Your task to perform on an android device: toggle javascript in the chrome app Image 0: 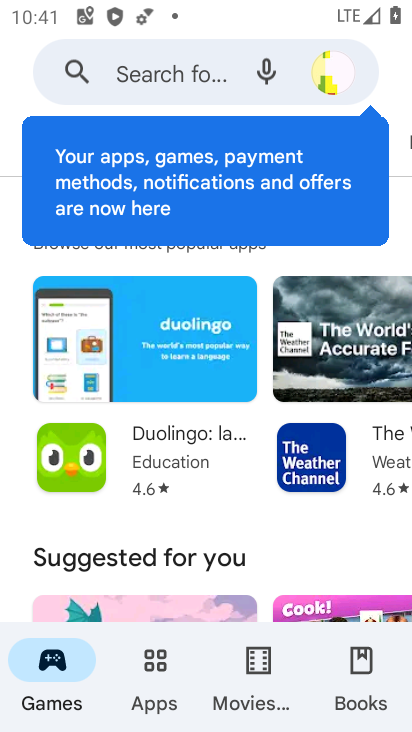
Step 0: press home button
Your task to perform on an android device: toggle javascript in the chrome app Image 1: 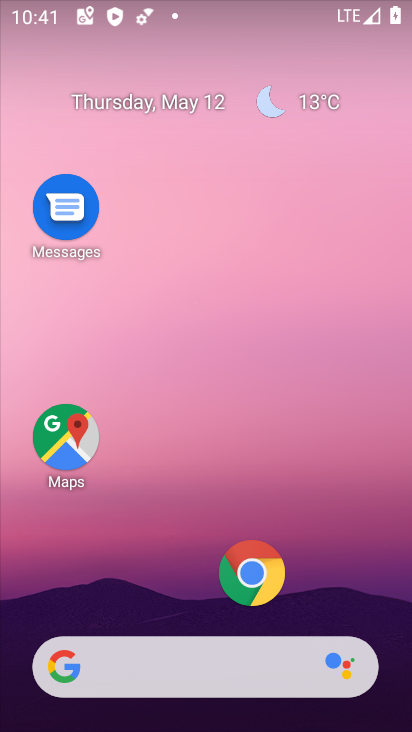
Step 1: click (249, 593)
Your task to perform on an android device: toggle javascript in the chrome app Image 2: 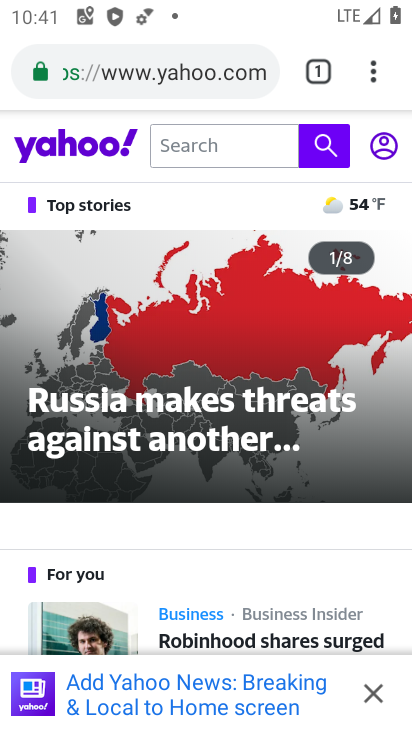
Step 2: click (368, 70)
Your task to perform on an android device: toggle javascript in the chrome app Image 3: 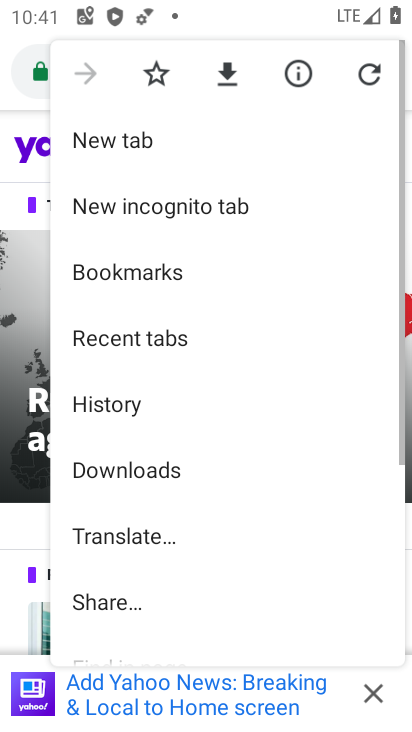
Step 3: drag from (410, 137) to (370, 280)
Your task to perform on an android device: toggle javascript in the chrome app Image 4: 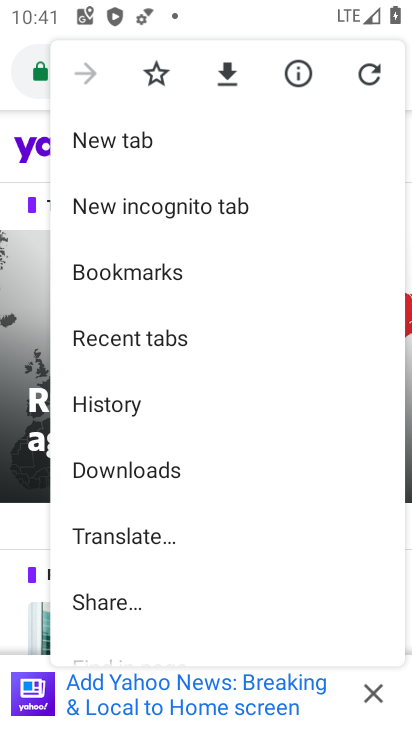
Step 4: drag from (177, 477) to (158, 55)
Your task to perform on an android device: toggle javascript in the chrome app Image 5: 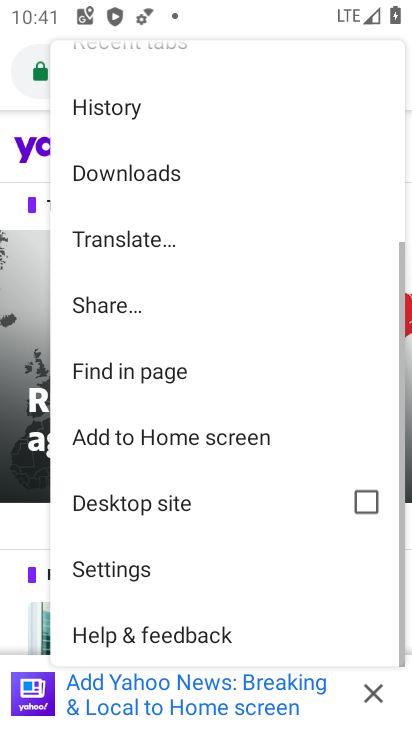
Step 5: click (108, 556)
Your task to perform on an android device: toggle javascript in the chrome app Image 6: 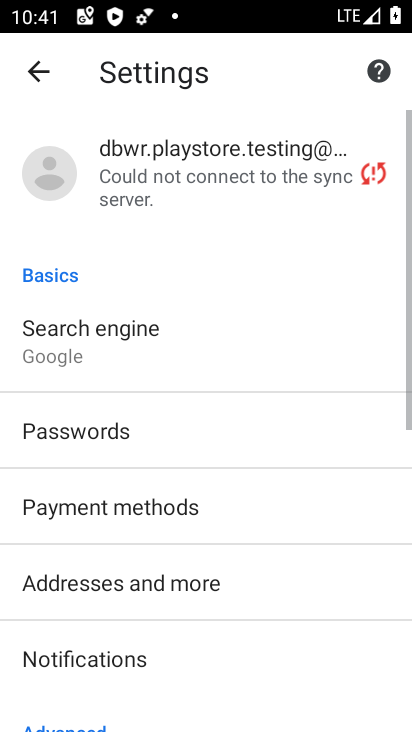
Step 6: drag from (140, 656) to (139, 70)
Your task to perform on an android device: toggle javascript in the chrome app Image 7: 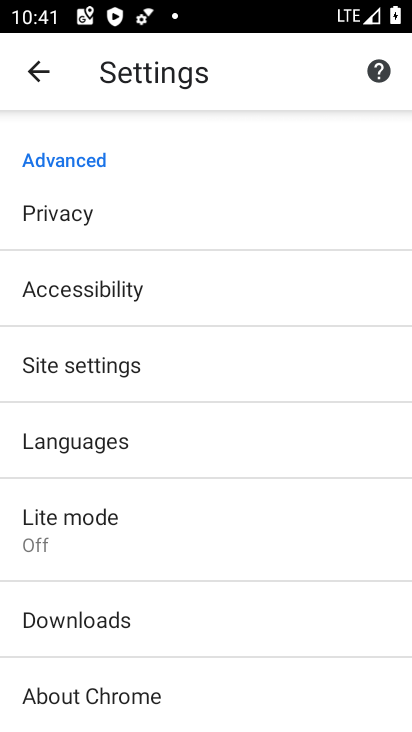
Step 7: click (111, 369)
Your task to perform on an android device: toggle javascript in the chrome app Image 8: 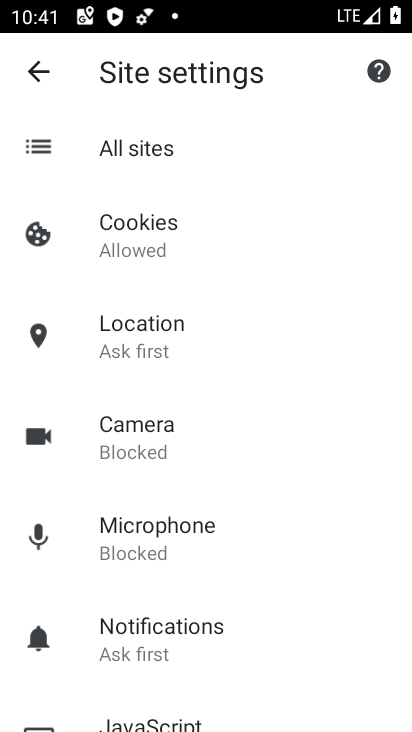
Step 8: click (160, 727)
Your task to perform on an android device: toggle javascript in the chrome app Image 9: 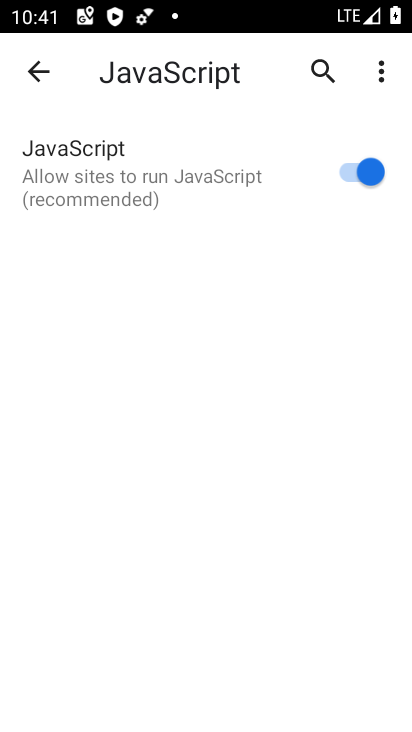
Step 9: click (346, 173)
Your task to perform on an android device: toggle javascript in the chrome app Image 10: 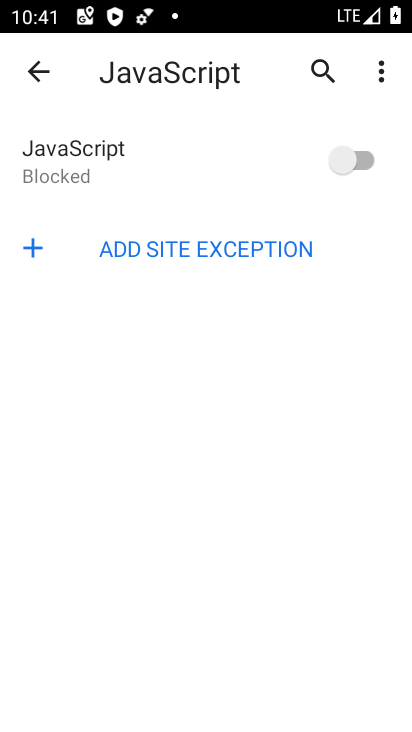
Step 10: task complete